Your task to perform on an android device: Go to battery settings Image 0: 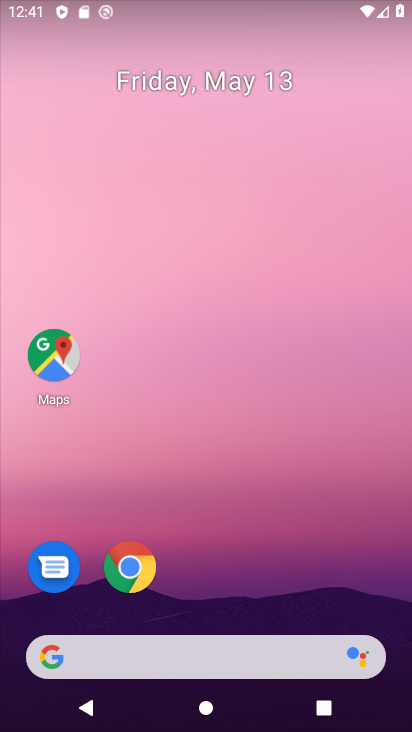
Step 0: drag from (274, 576) to (224, 73)
Your task to perform on an android device: Go to battery settings Image 1: 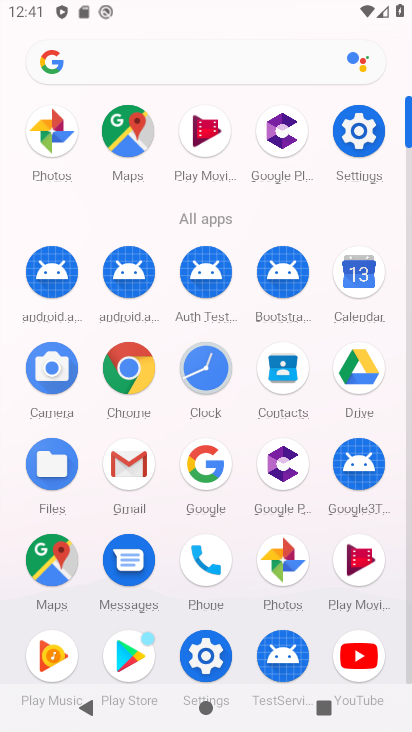
Step 1: click (335, 163)
Your task to perform on an android device: Go to battery settings Image 2: 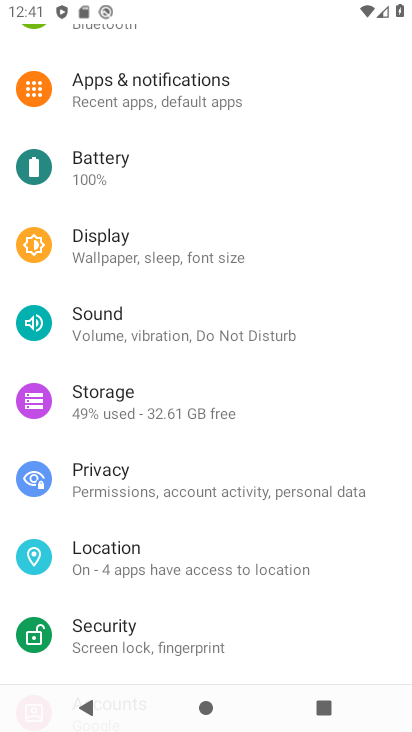
Step 2: click (155, 185)
Your task to perform on an android device: Go to battery settings Image 3: 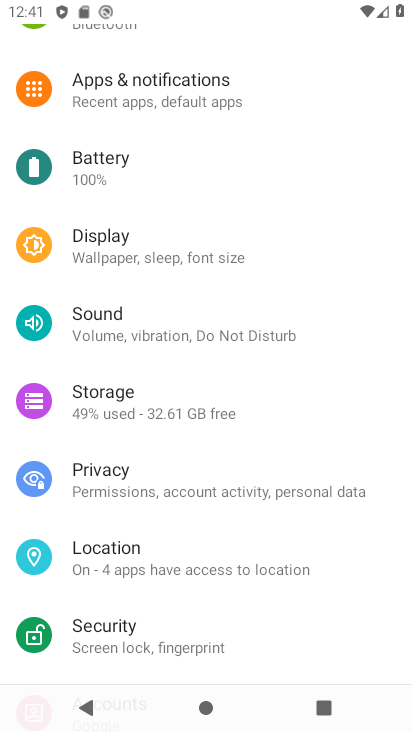
Step 3: task complete